Your task to perform on an android device: Go to Reddit.com Image 0: 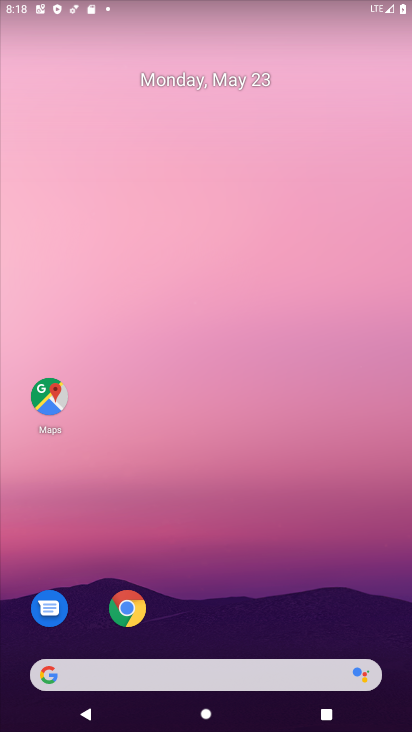
Step 0: click (131, 596)
Your task to perform on an android device: Go to Reddit.com Image 1: 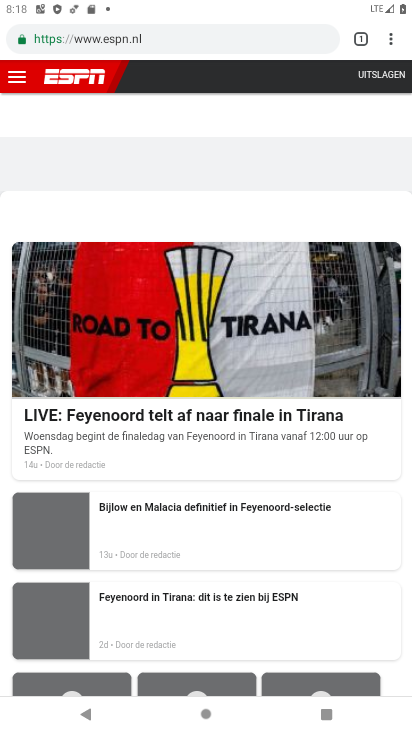
Step 1: click (180, 52)
Your task to perform on an android device: Go to Reddit.com Image 2: 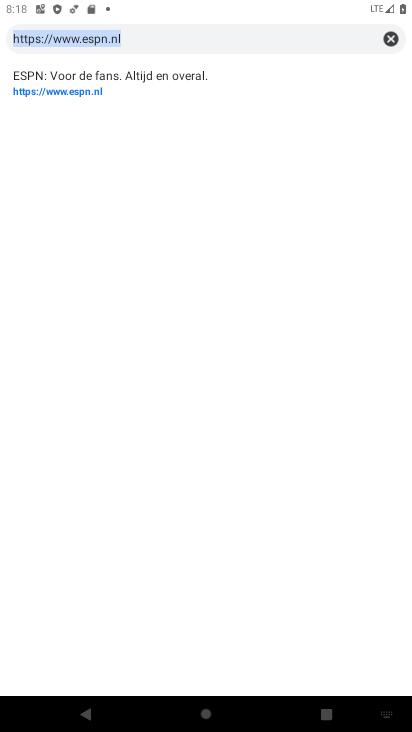
Step 2: type "reddit.com"
Your task to perform on an android device: Go to Reddit.com Image 3: 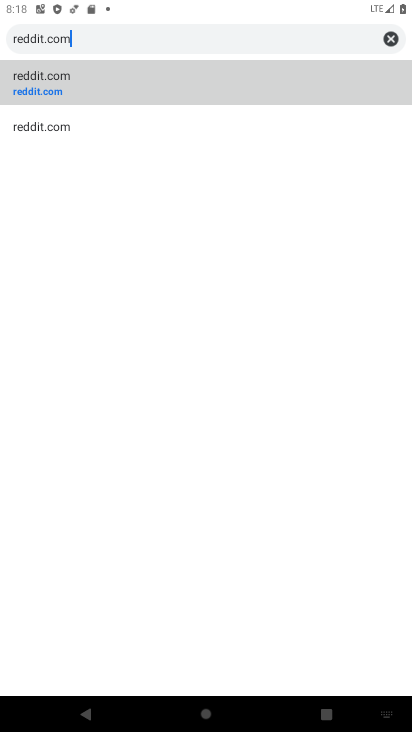
Step 3: click (117, 93)
Your task to perform on an android device: Go to Reddit.com Image 4: 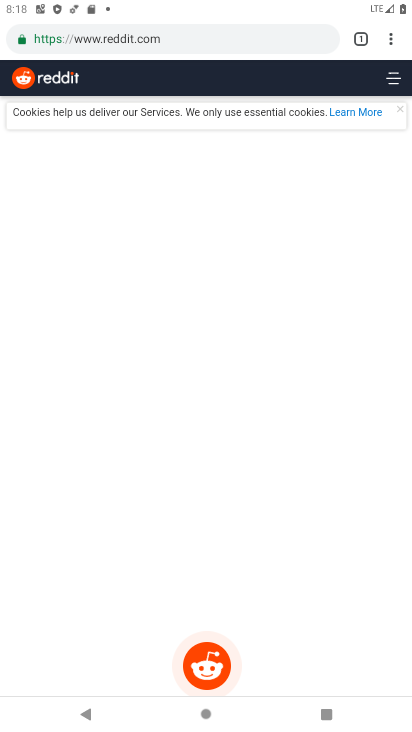
Step 4: task complete